Your task to perform on an android device: Open the stopwatch Image 0: 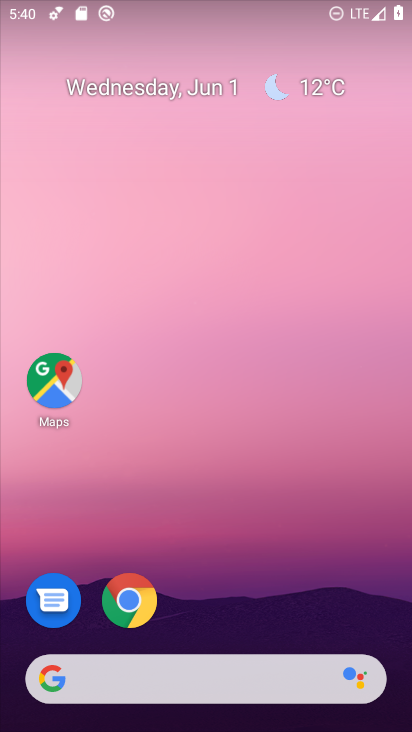
Step 0: drag from (343, 633) to (253, 38)
Your task to perform on an android device: Open the stopwatch Image 1: 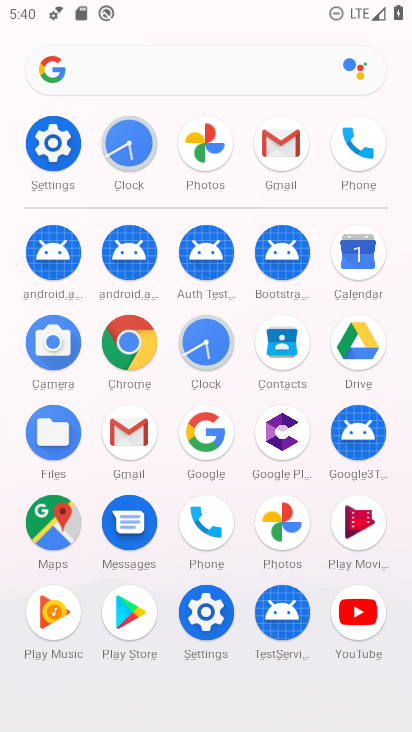
Step 1: click (209, 344)
Your task to perform on an android device: Open the stopwatch Image 2: 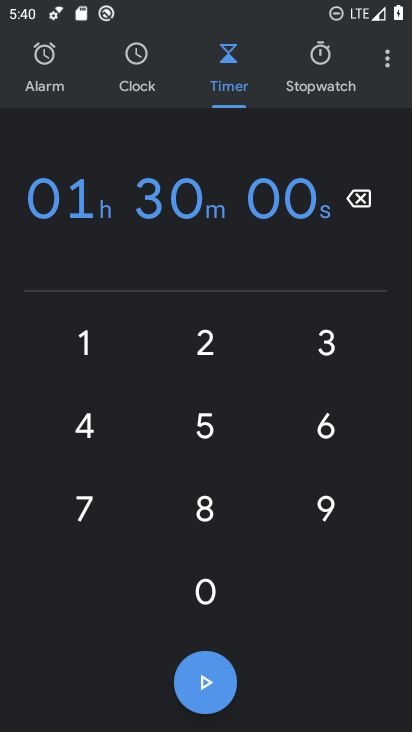
Step 2: click (319, 53)
Your task to perform on an android device: Open the stopwatch Image 3: 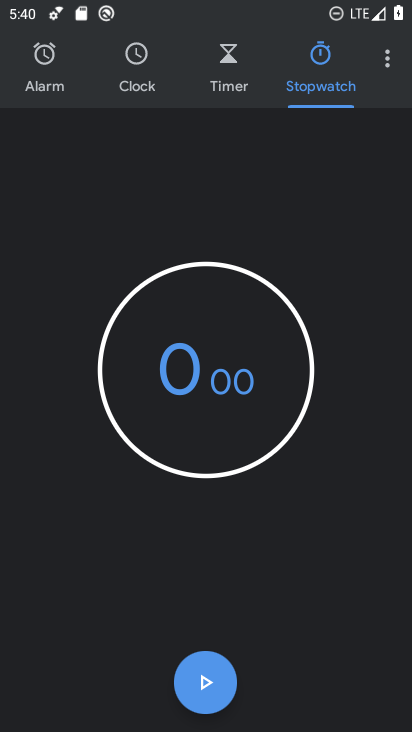
Step 3: task complete